Your task to perform on an android device: Do I have any events this weekend? Image 0: 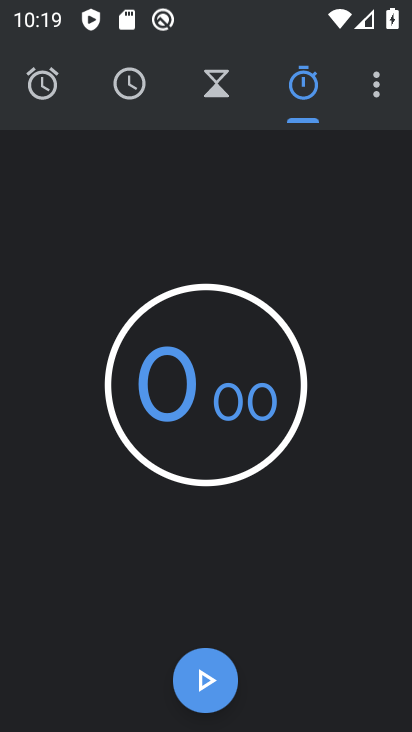
Step 0: press home button
Your task to perform on an android device: Do I have any events this weekend? Image 1: 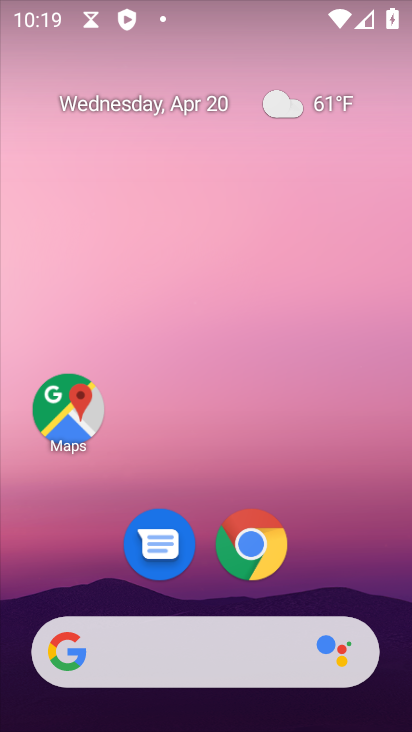
Step 1: drag from (218, 624) to (328, 6)
Your task to perform on an android device: Do I have any events this weekend? Image 2: 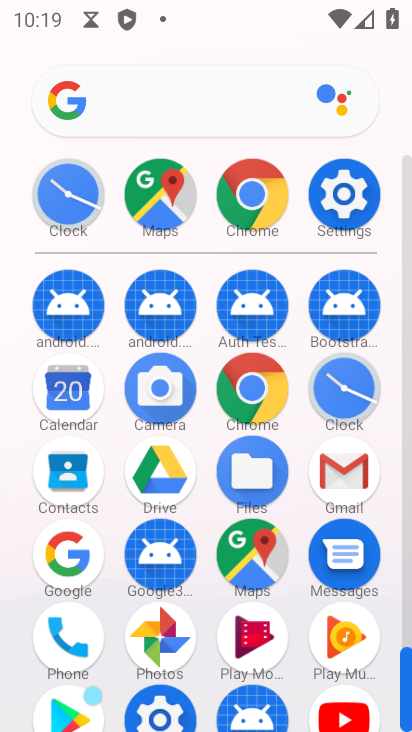
Step 2: click (71, 401)
Your task to perform on an android device: Do I have any events this weekend? Image 3: 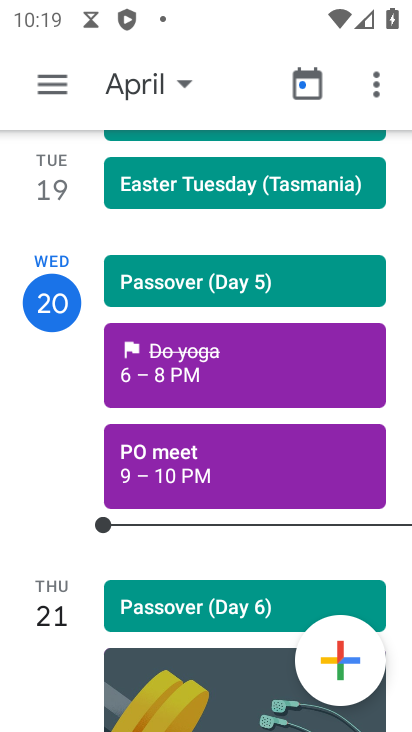
Step 3: click (147, 78)
Your task to perform on an android device: Do I have any events this weekend? Image 4: 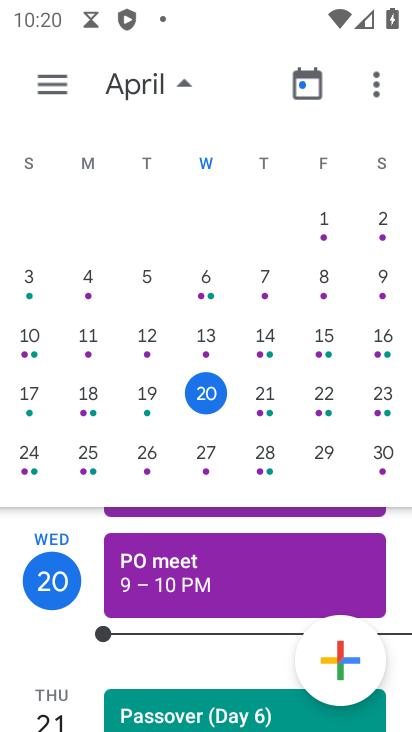
Step 4: click (381, 396)
Your task to perform on an android device: Do I have any events this weekend? Image 5: 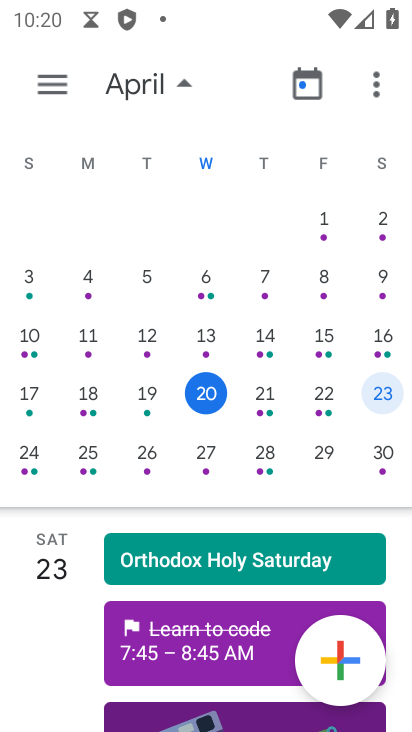
Step 5: click (47, 81)
Your task to perform on an android device: Do I have any events this weekend? Image 6: 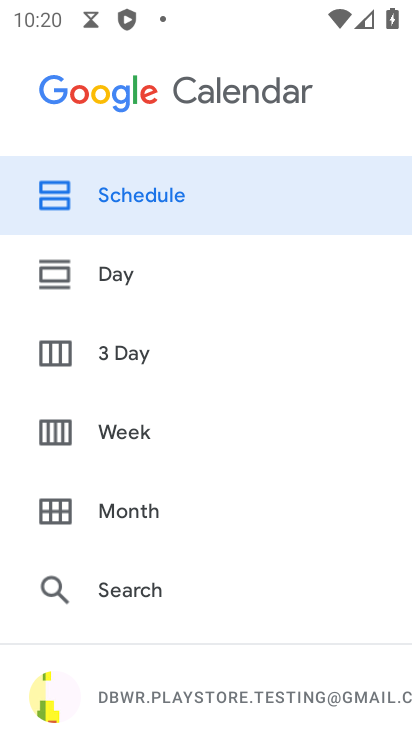
Step 6: click (110, 197)
Your task to perform on an android device: Do I have any events this weekend? Image 7: 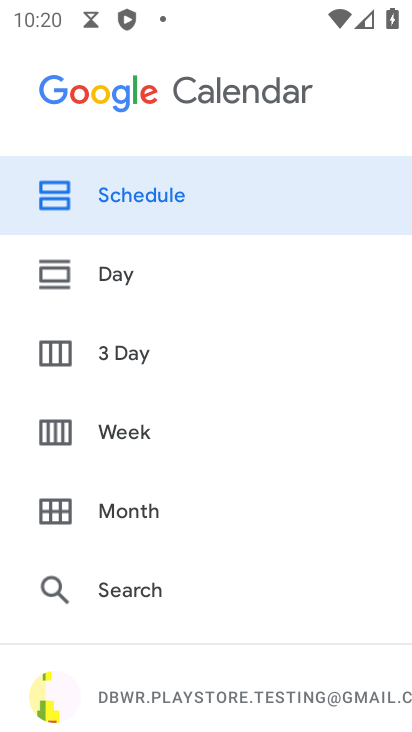
Step 7: click (157, 186)
Your task to perform on an android device: Do I have any events this weekend? Image 8: 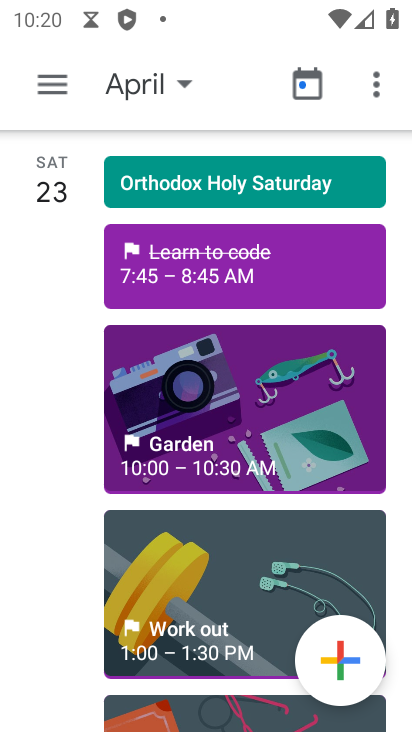
Step 8: click (233, 273)
Your task to perform on an android device: Do I have any events this weekend? Image 9: 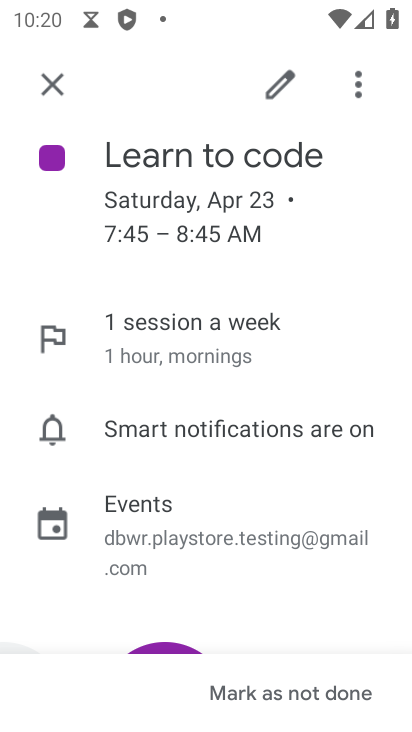
Step 9: task complete